Your task to perform on an android device: Open the map Image 0: 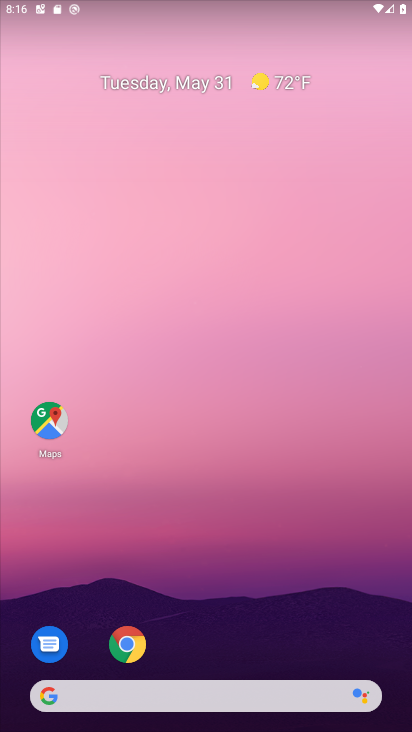
Step 0: press home button
Your task to perform on an android device: Open the map Image 1: 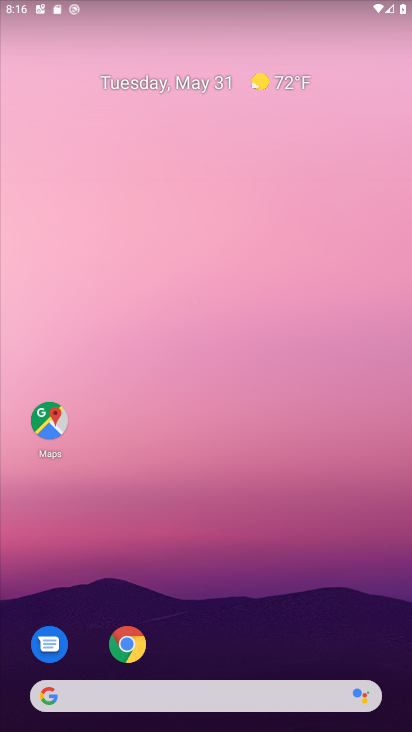
Step 1: click (46, 413)
Your task to perform on an android device: Open the map Image 2: 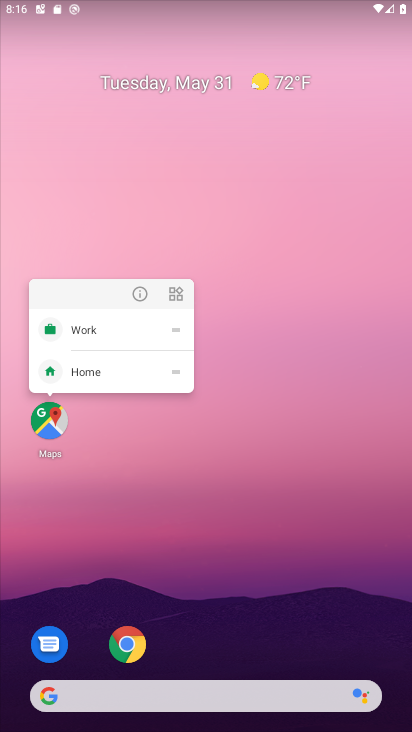
Step 2: click (47, 419)
Your task to perform on an android device: Open the map Image 3: 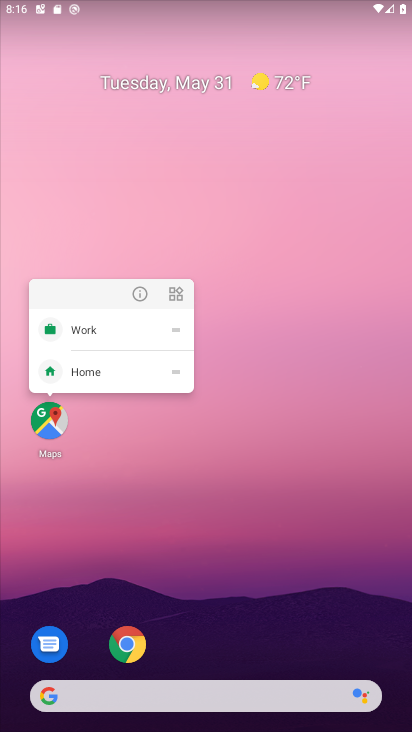
Step 3: click (48, 419)
Your task to perform on an android device: Open the map Image 4: 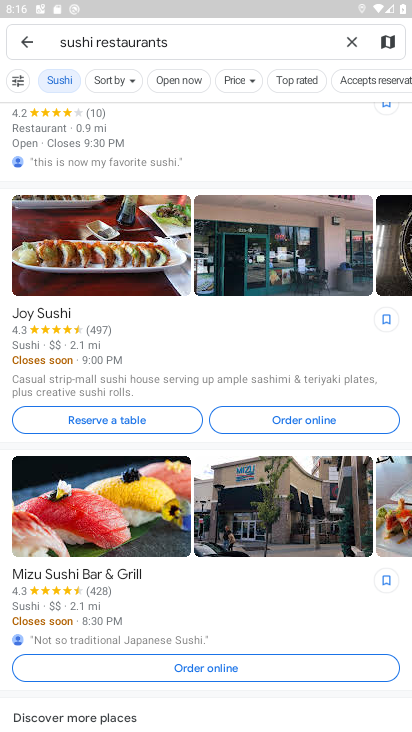
Step 4: click (29, 39)
Your task to perform on an android device: Open the map Image 5: 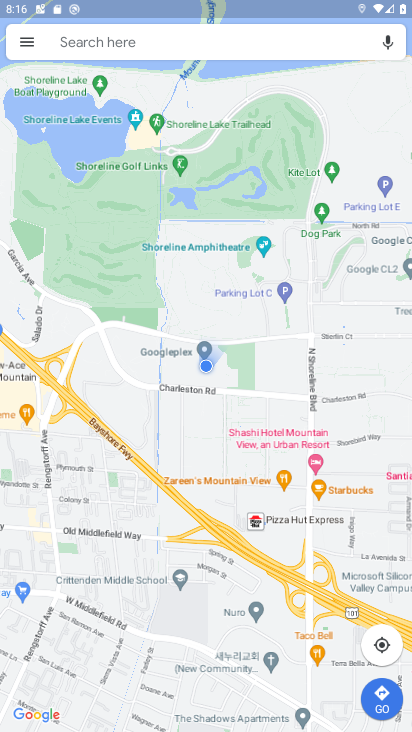
Step 5: task complete